Your task to perform on an android device: Go to ESPN.com Image 0: 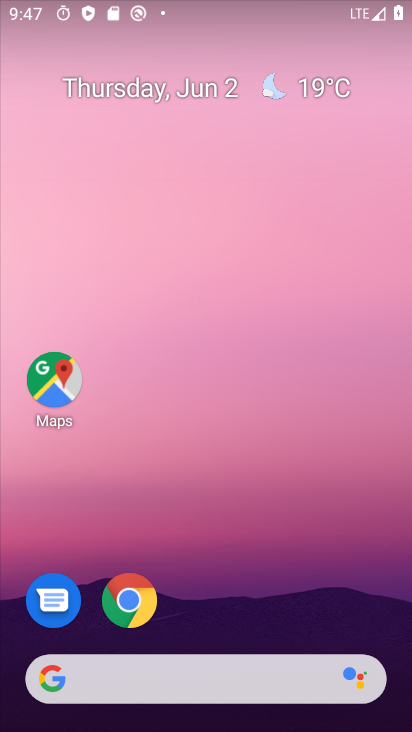
Step 0: click (130, 594)
Your task to perform on an android device: Go to ESPN.com Image 1: 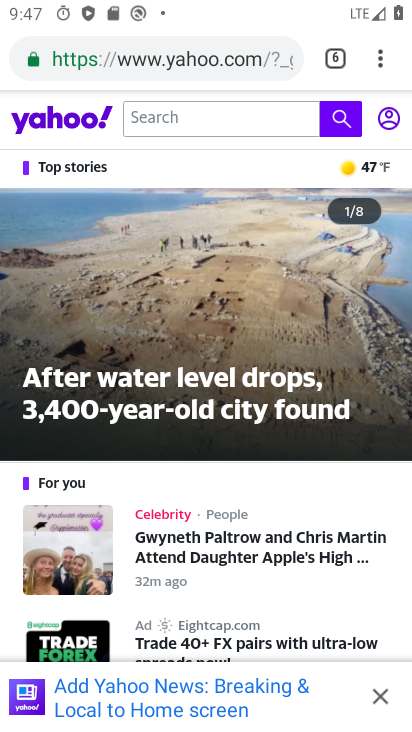
Step 1: click (335, 52)
Your task to perform on an android device: Go to ESPN.com Image 2: 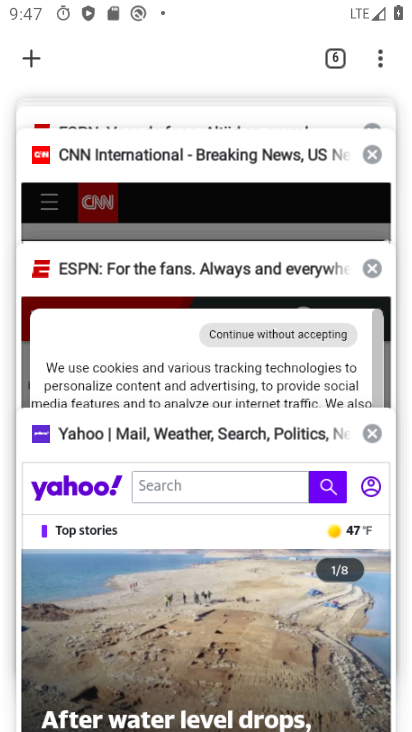
Step 2: drag from (153, 157) to (150, 198)
Your task to perform on an android device: Go to ESPN.com Image 3: 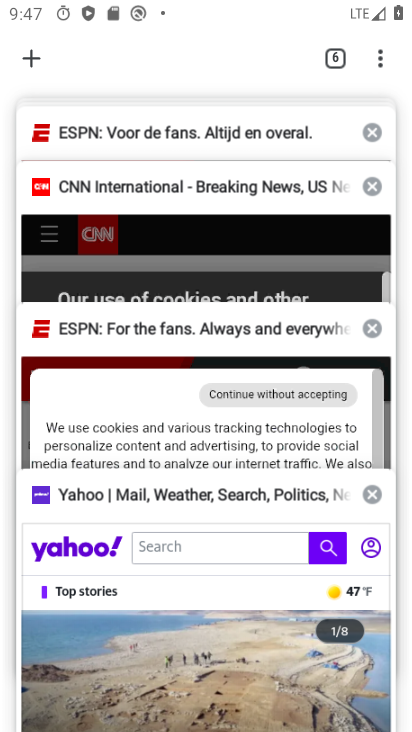
Step 3: click (236, 342)
Your task to perform on an android device: Go to ESPN.com Image 4: 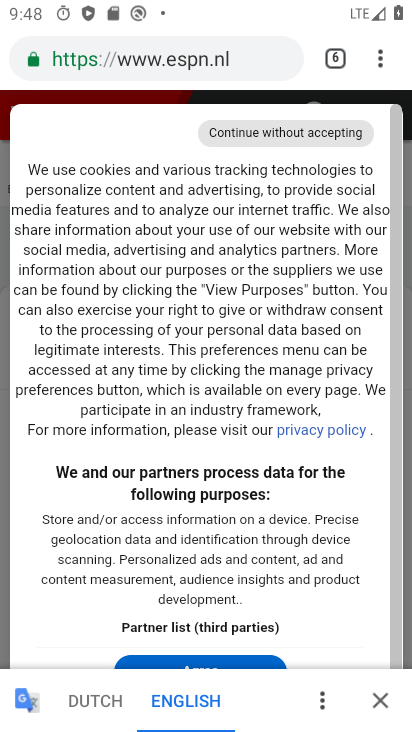
Step 4: task complete